Your task to perform on an android device: Go to privacy settings Image 0: 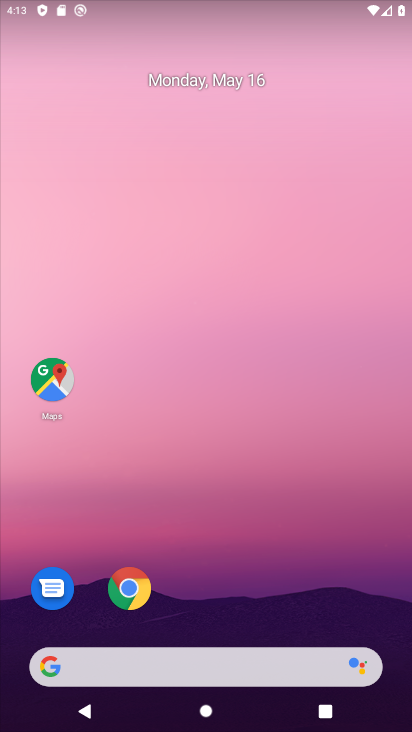
Step 0: drag from (287, 548) to (302, 14)
Your task to perform on an android device: Go to privacy settings Image 1: 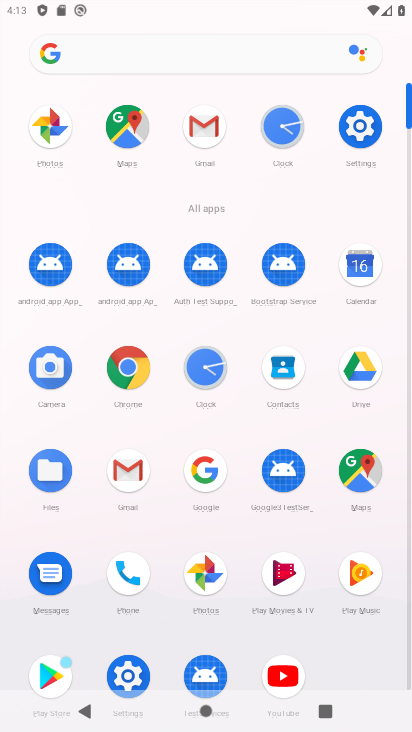
Step 1: drag from (17, 535) to (12, 208)
Your task to perform on an android device: Go to privacy settings Image 2: 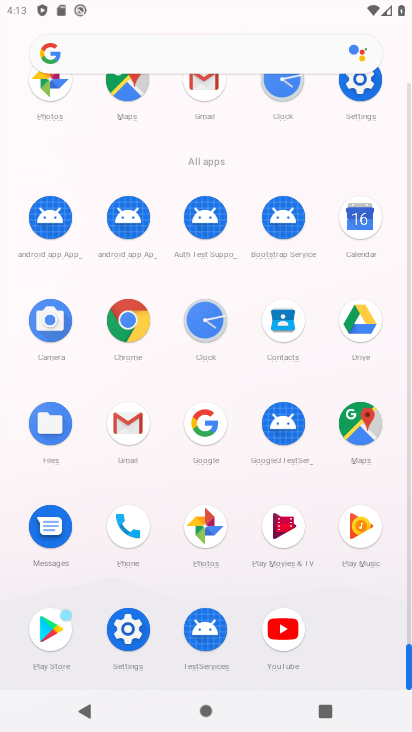
Step 2: click (125, 629)
Your task to perform on an android device: Go to privacy settings Image 3: 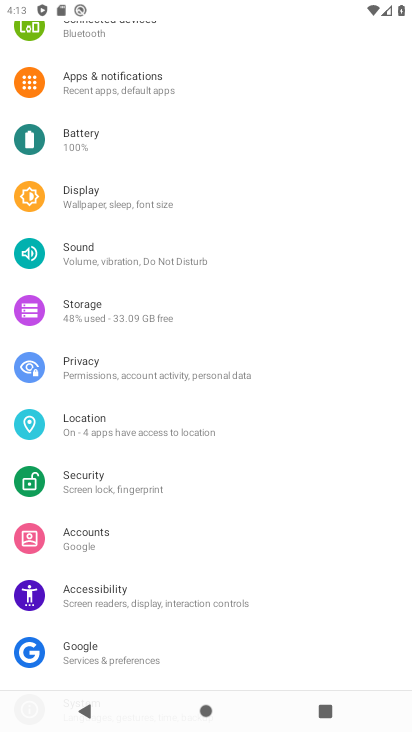
Step 3: click (146, 365)
Your task to perform on an android device: Go to privacy settings Image 4: 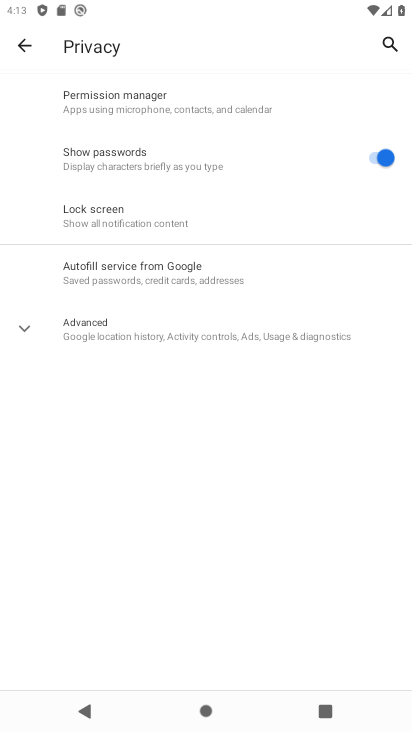
Step 4: click (41, 318)
Your task to perform on an android device: Go to privacy settings Image 5: 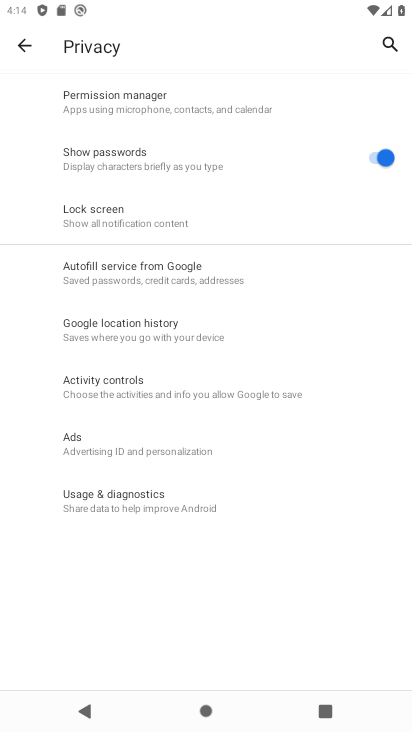
Step 5: task complete